Your task to perform on an android device: Do I have any events this weekend? Image 0: 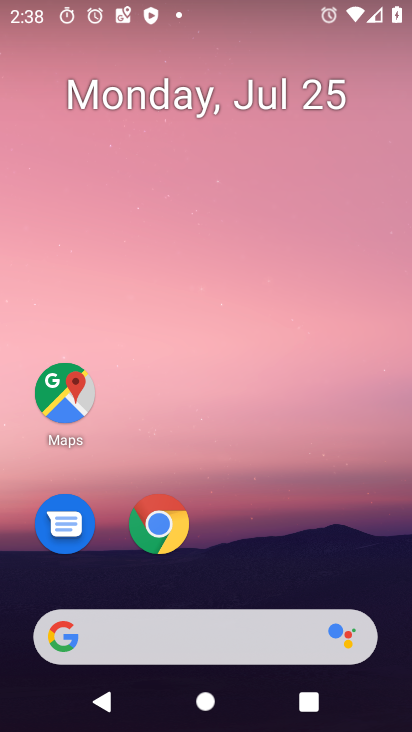
Step 0: press home button
Your task to perform on an android device: Do I have any events this weekend? Image 1: 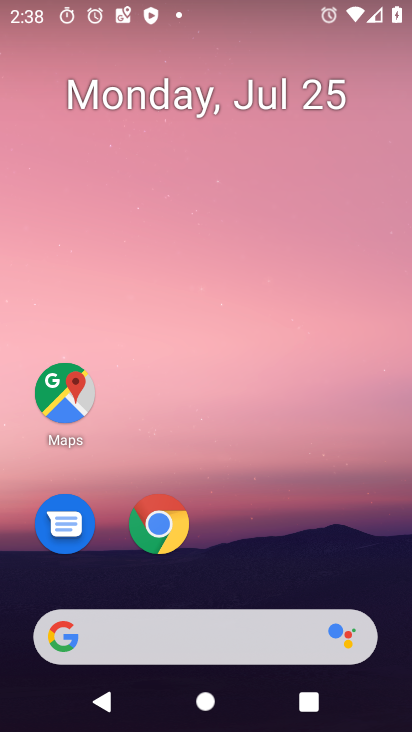
Step 1: drag from (278, 578) to (312, 0)
Your task to perform on an android device: Do I have any events this weekend? Image 2: 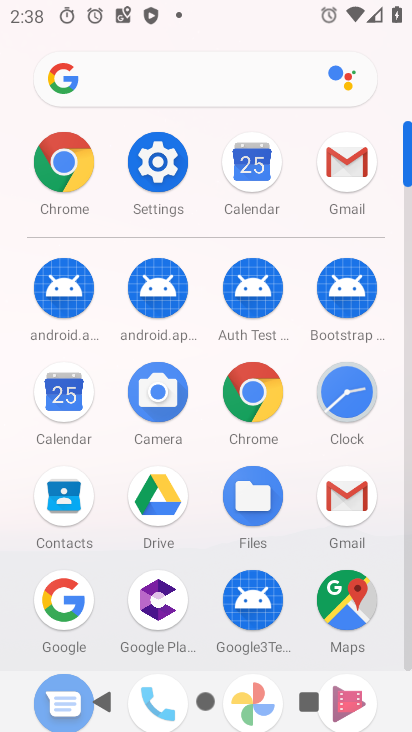
Step 2: click (239, 161)
Your task to perform on an android device: Do I have any events this weekend? Image 3: 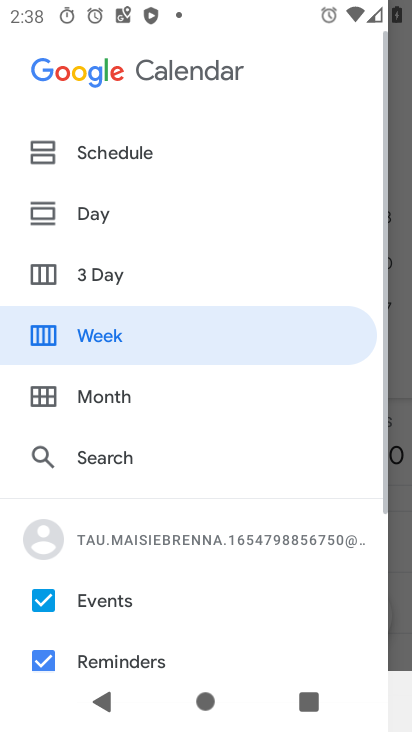
Step 3: click (130, 402)
Your task to perform on an android device: Do I have any events this weekend? Image 4: 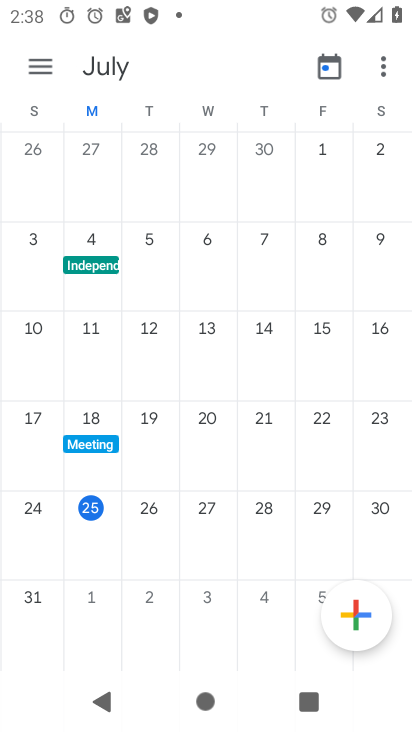
Step 4: click (53, 68)
Your task to perform on an android device: Do I have any events this weekend? Image 5: 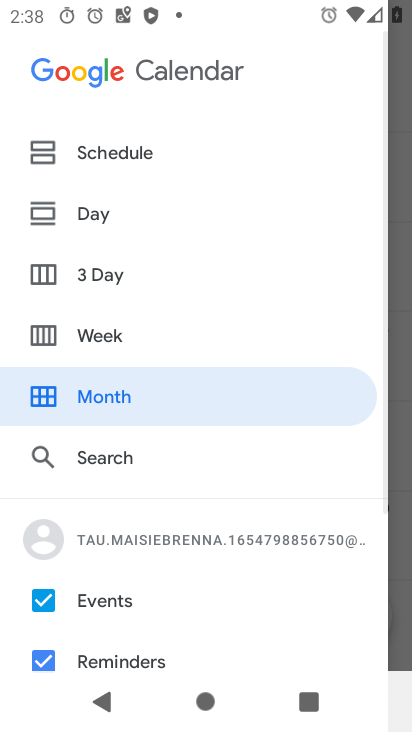
Step 5: click (103, 334)
Your task to perform on an android device: Do I have any events this weekend? Image 6: 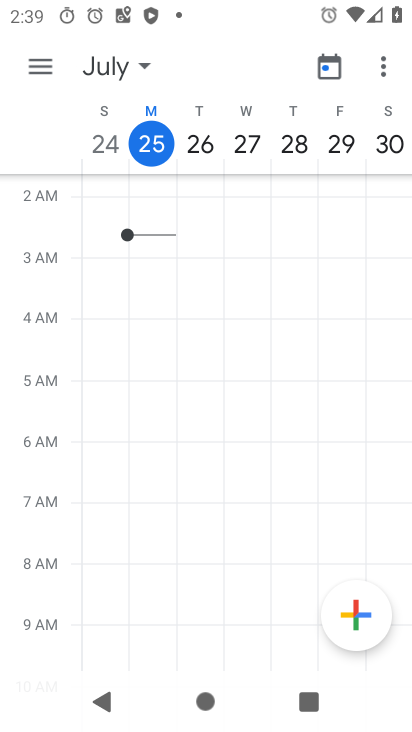
Step 6: task complete